Your task to perform on an android device: open device folders in google photos Image 0: 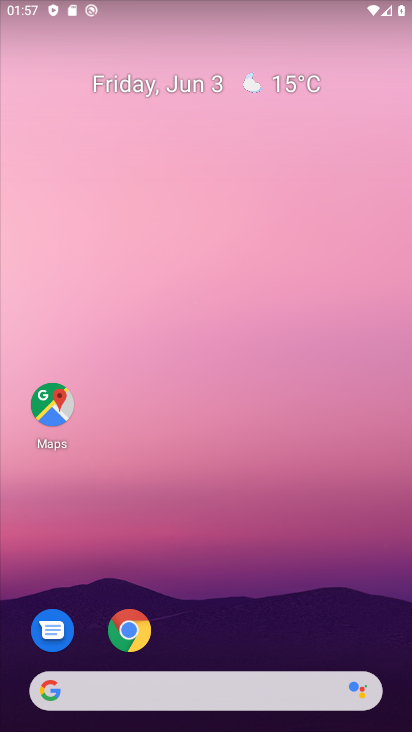
Step 0: drag from (377, 508) to (352, 158)
Your task to perform on an android device: open device folders in google photos Image 1: 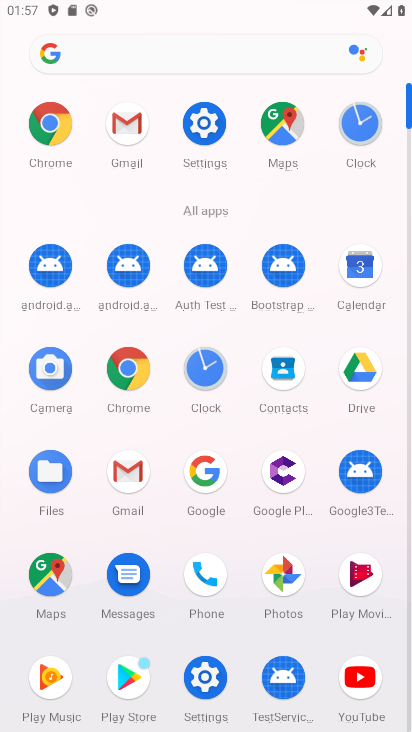
Step 1: click (273, 574)
Your task to perform on an android device: open device folders in google photos Image 2: 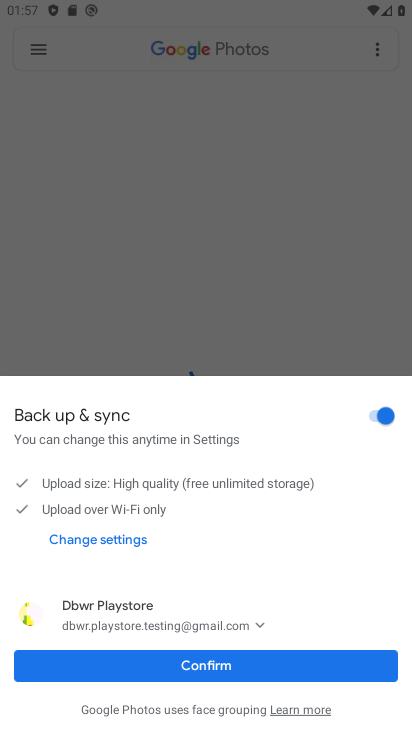
Step 2: click (284, 569)
Your task to perform on an android device: open device folders in google photos Image 3: 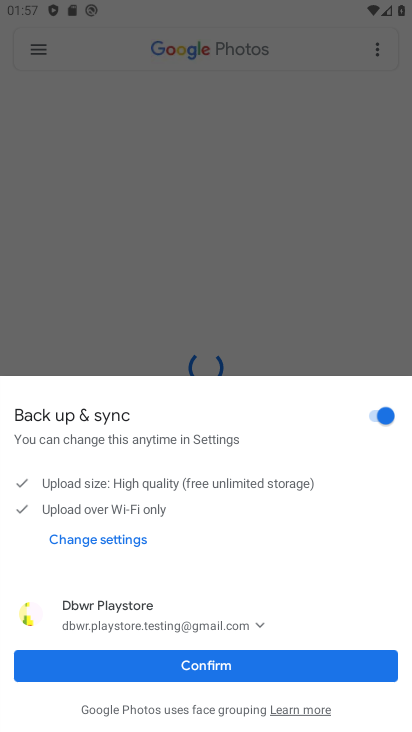
Step 3: click (249, 672)
Your task to perform on an android device: open device folders in google photos Image 4: 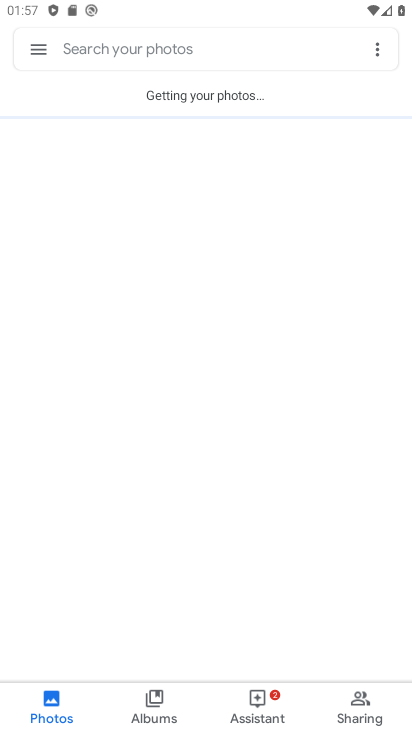
Step 4: click (42, 45)
Your task to perform on an android device: open device folders in google photos Image 5: 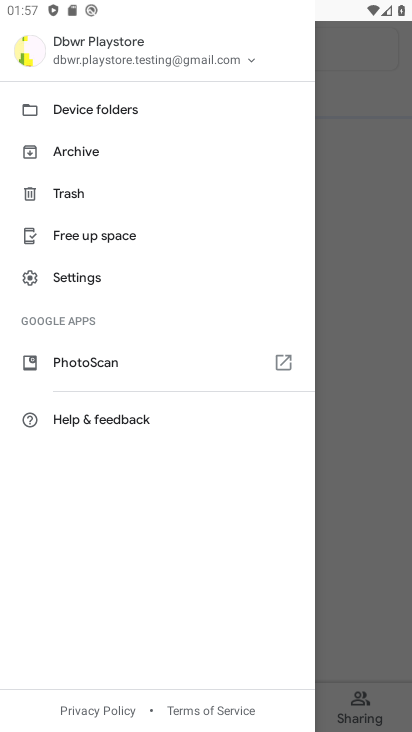
Step 5: click (85, 111)
Your task to perform on an android device: open device folders in google photos Image 6: 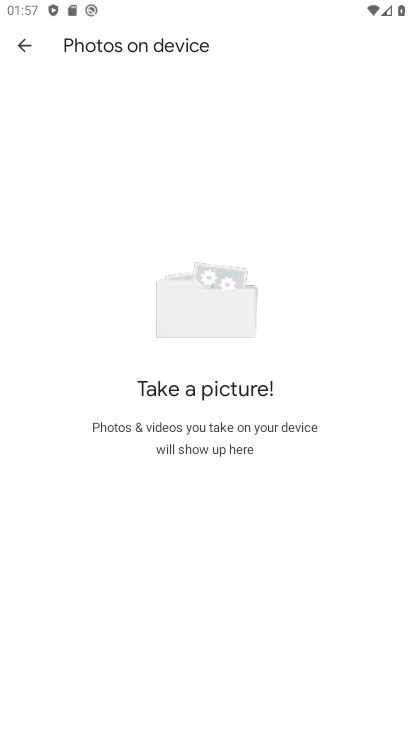
Step 6: task complete